Your task to perform on an android device: Search for floor lamps on article.com Image 0: 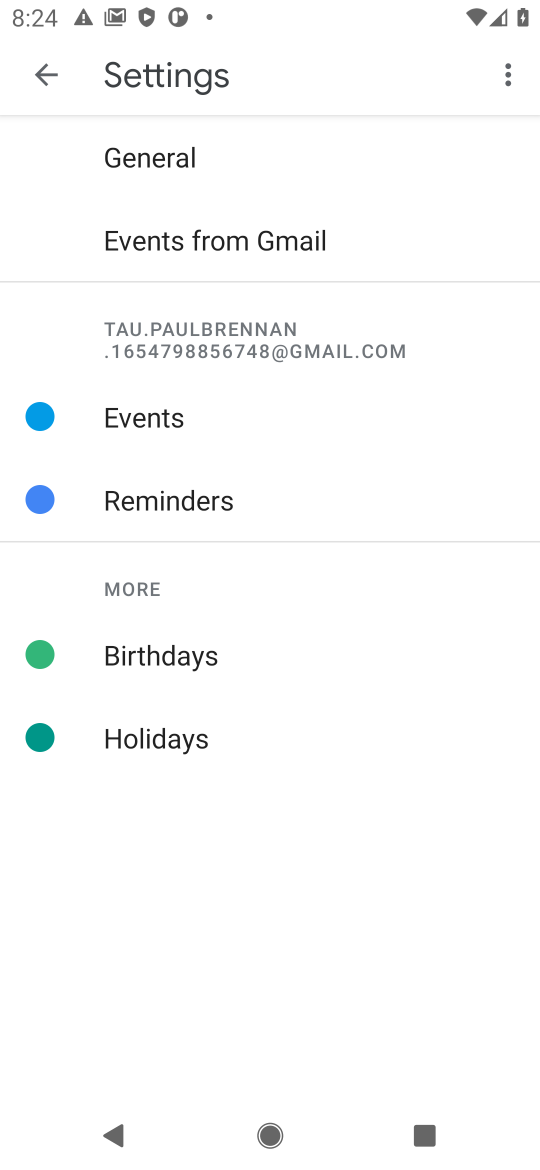
Step 0: press home button
Your task to perform on an android device: Search for floor lamps on article.com Image 1: 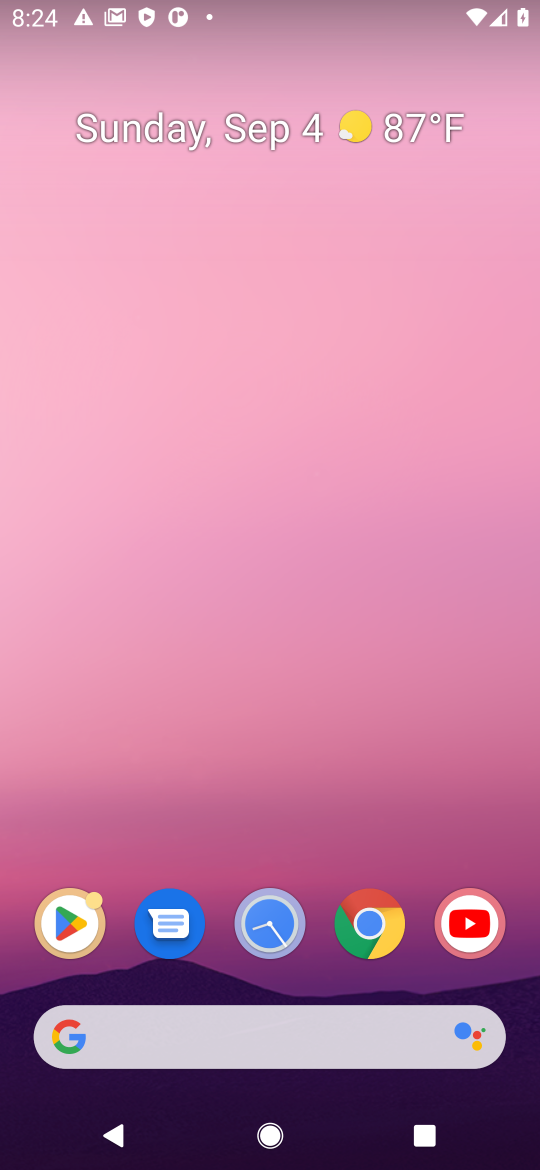
Step 1: click (369, 1028)
Your task to perform on an android device: Search for floor lamps on article.com Image 2: 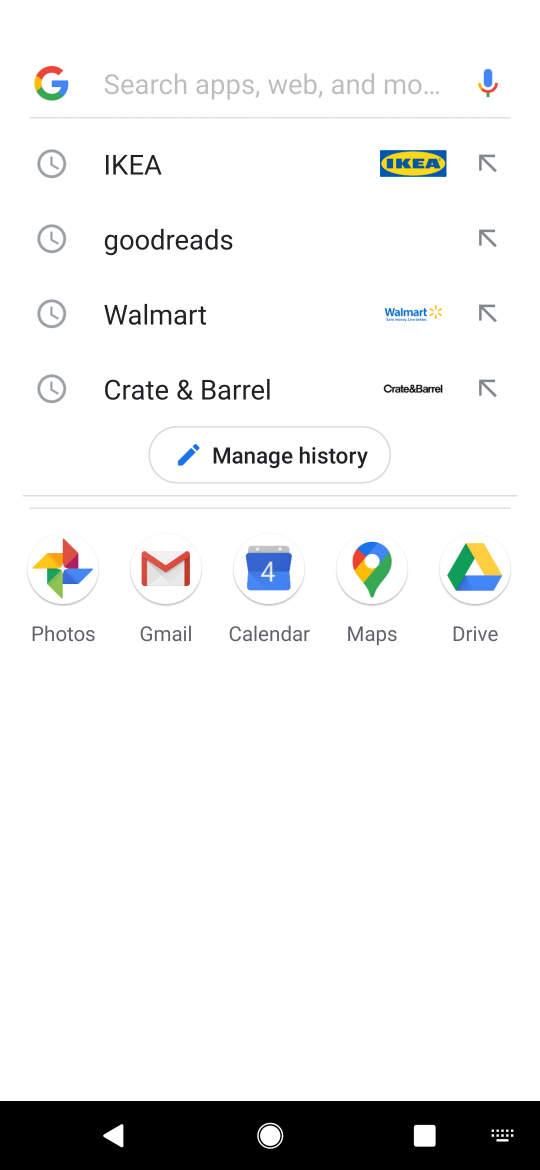
Step 2: press enter
Your task to perform on an android device: Search for floor lamps on article.com Image 3: 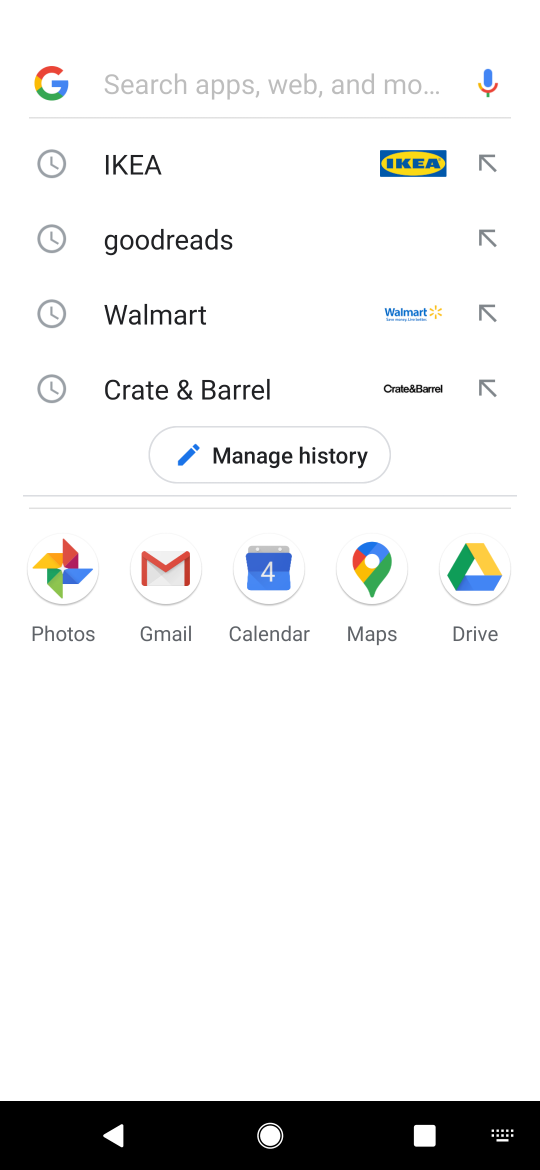
Step 3: type "article.com"
Your task to perform on an android device: Search for floor lamps on article.com Image 4: 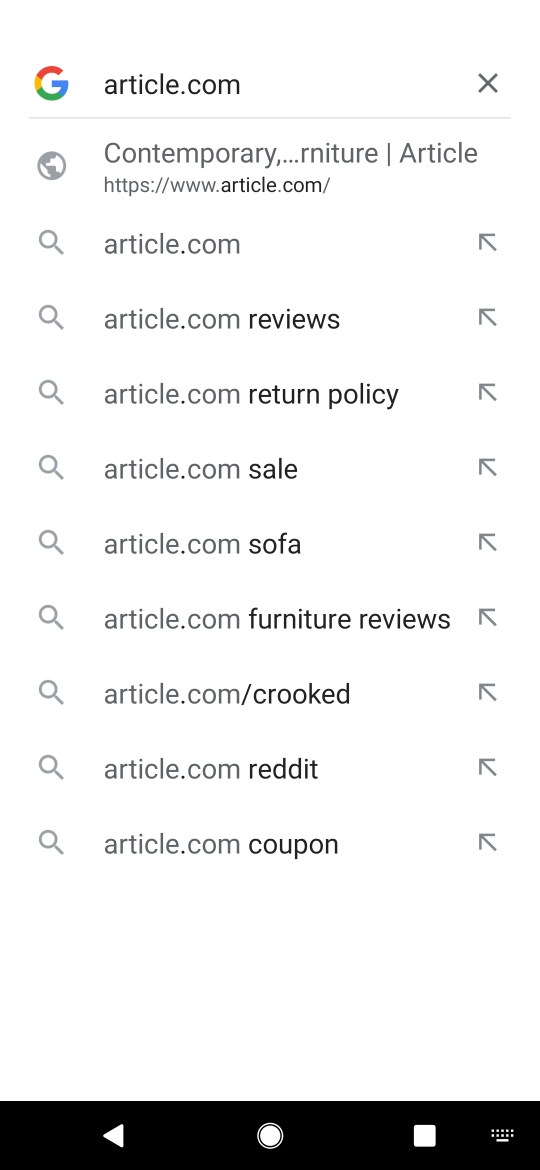
Step 4: click (278, 160)
Your task to perform on an android device: Search for floor lamps on article.com Image 5: 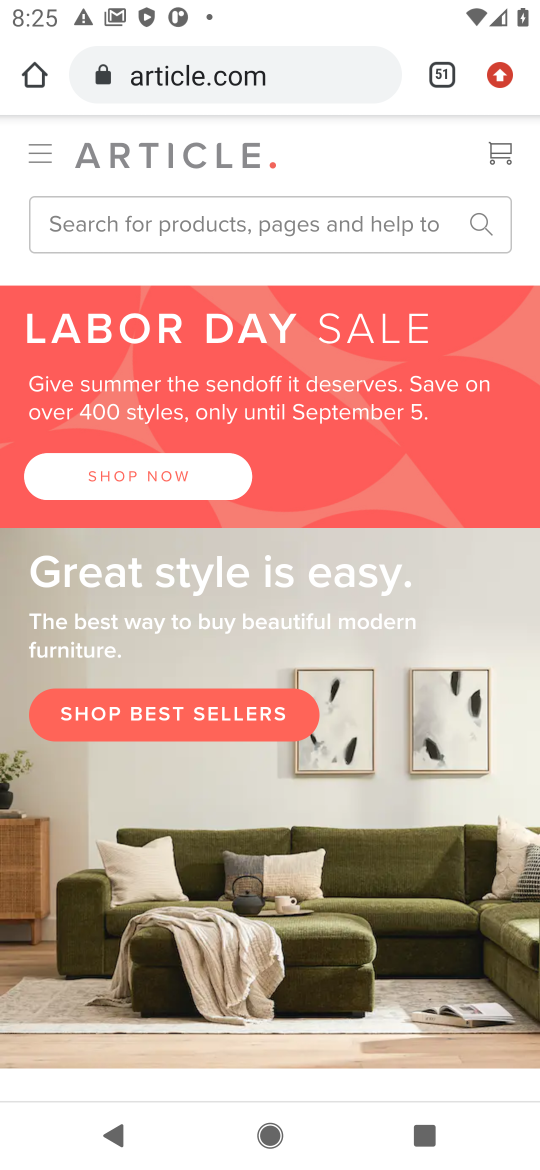
Step 5: click (199, 219)
Your task to perform on an android device: Search for floor lamps on article.com Image 6: 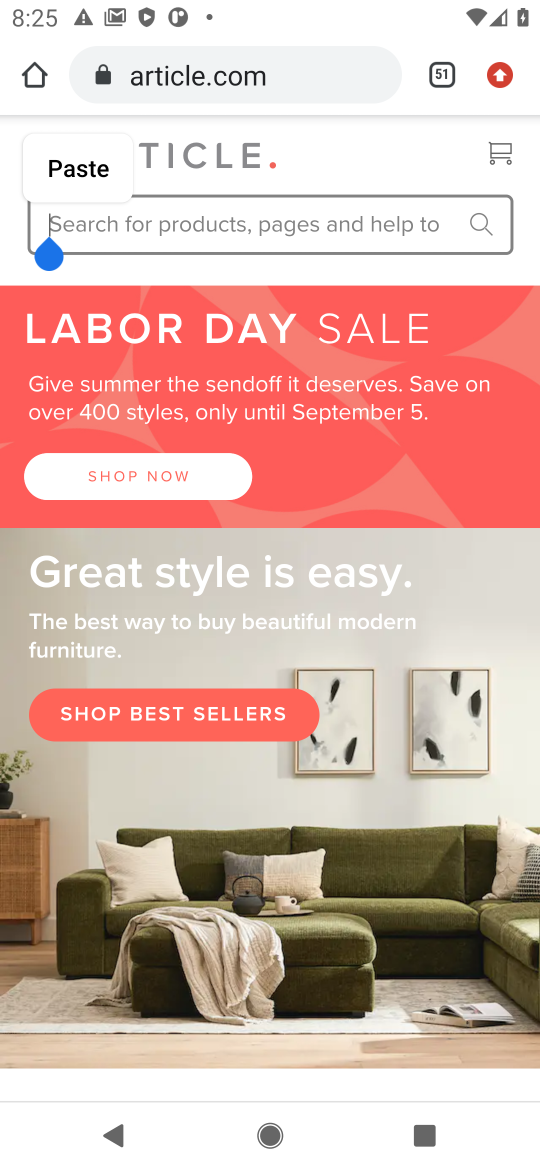
Step 6: press enter
Your task to perform on an android device: Search for floor lamps on article.com Image 7: 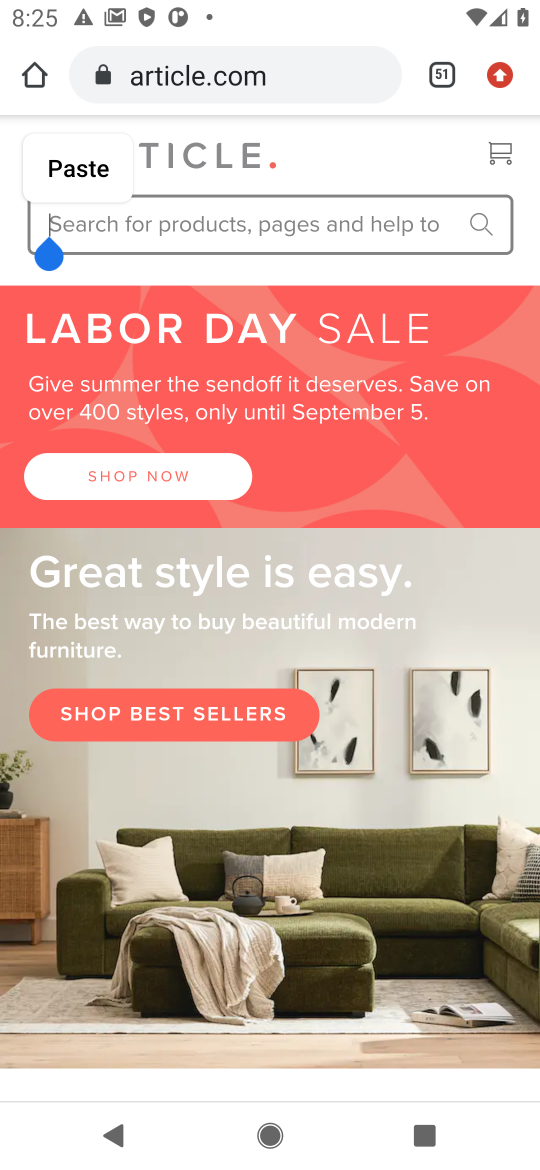
Step 7: type "floor lamps"
Your task to perform on an android device: Search for floor lamps on article.com Image 8: 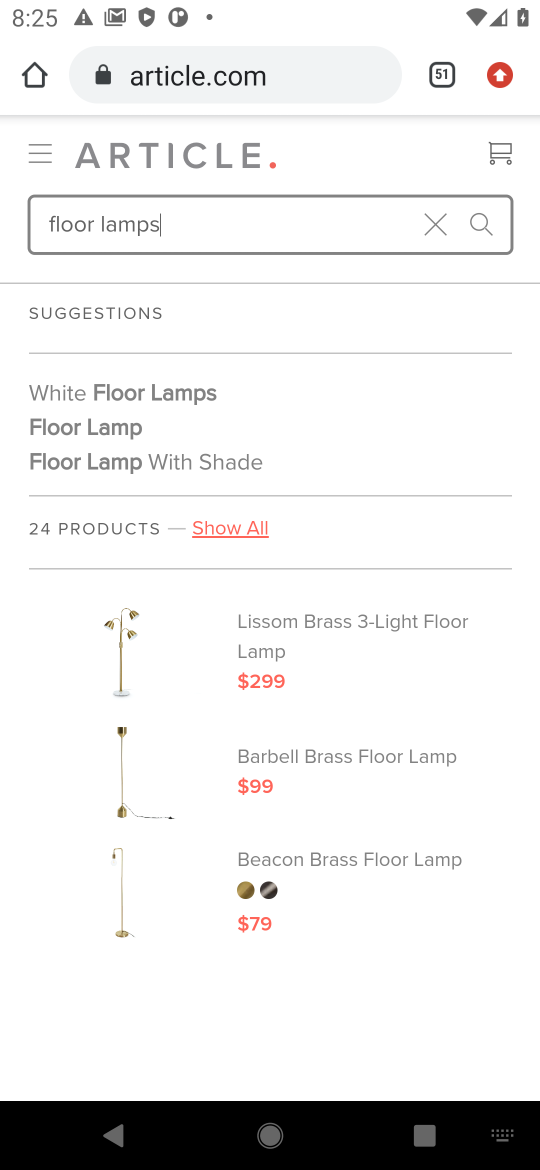
Step 8: task complete